Your task to perform on an android device: Go to accessibility settings Image 0: 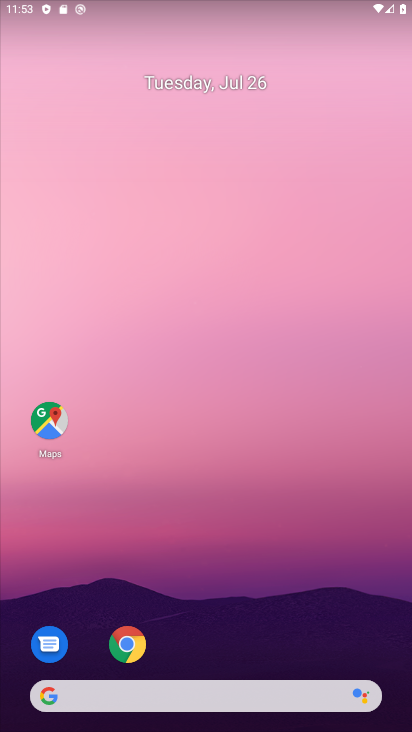
Step 0: drag from (208, 507) to (215, 213)
Your task to perform on an android device: Go to accessibility settings Image 1: 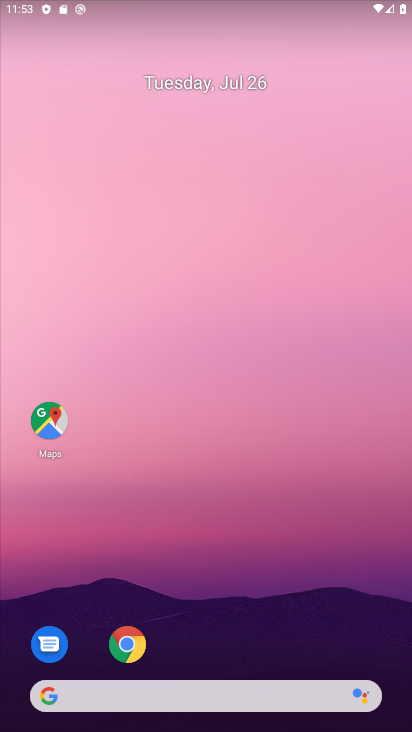
Step 1: drag from (313, 227) to (140, 20)
Your task to perform on an android device: Go to accessibility settings Image 2: 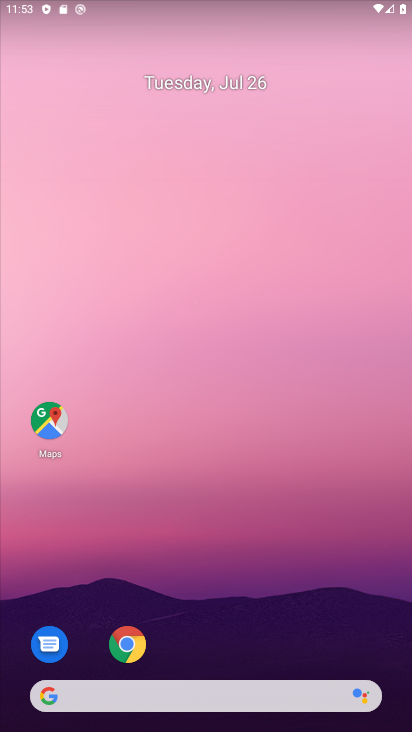
Step 2: drag from (180, 310) to (192, 98)
Your task to perform on an android device: Go to accessibility settings Image 3: 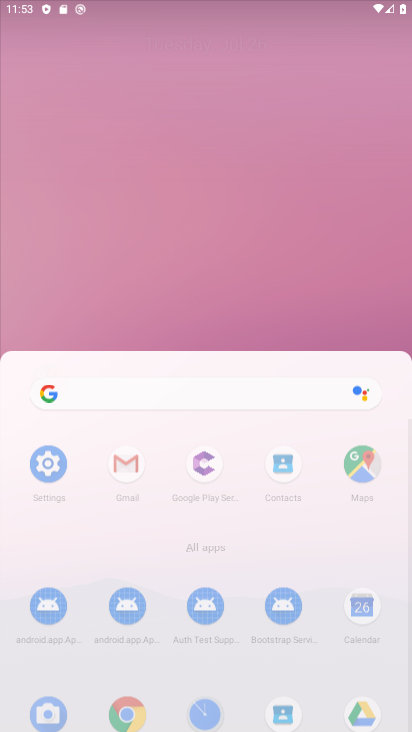
Step 3: drag from (178, 414) to (128, 40)
Your task to perform on an android device: Go to accessibility settings Image 4: 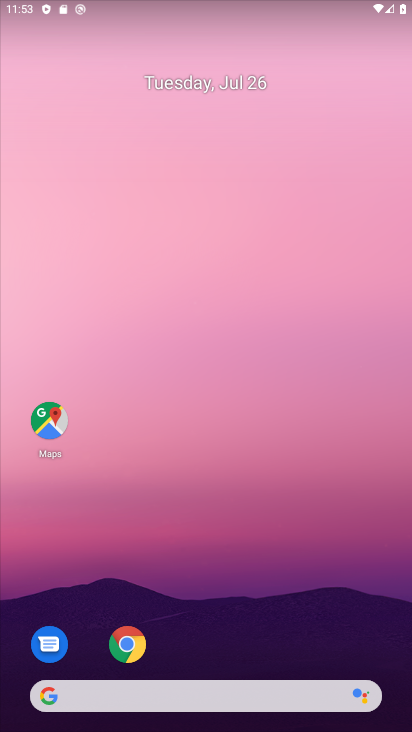
Step 4: drag from (253, 449) to (321, 20)
Your task to perform on an android device: Go to accessibility settings Image 5: 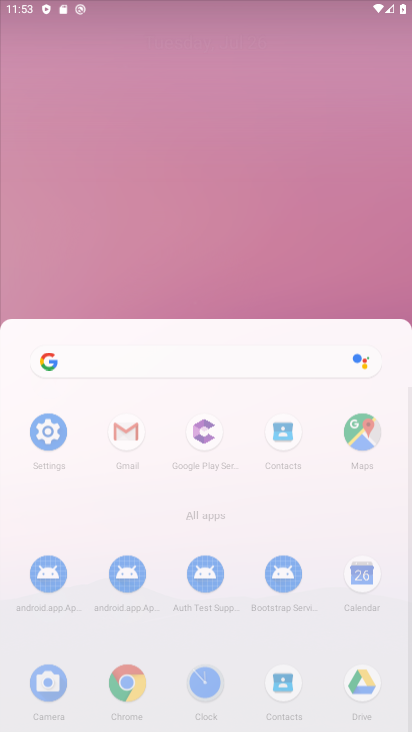
Step 5: click (288, 71)
Your task to perform on an android device: Go to accessibility settings Image 6: 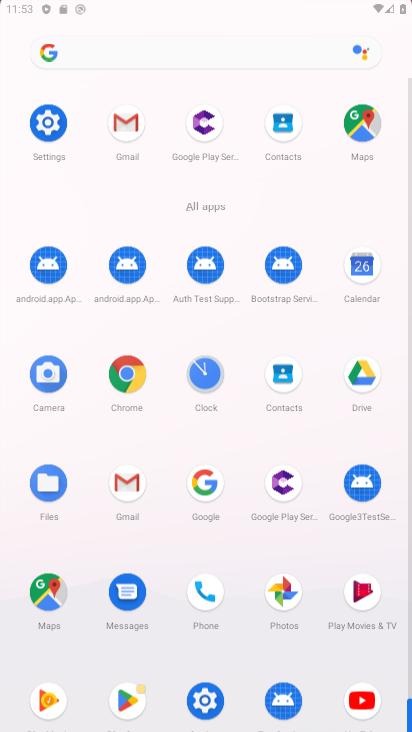
Step 6: drag from (162, 202) to (157, 12)
Your task to perform on an android device: Go to accessibility settings Image 7: 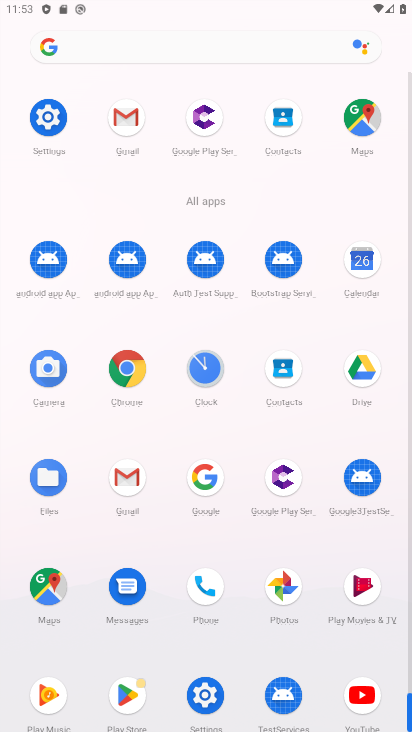
Step 7: drag from (152, 500) to (242, 127)
Your task to perform on an android device: Go to accessibility settings Image 8: 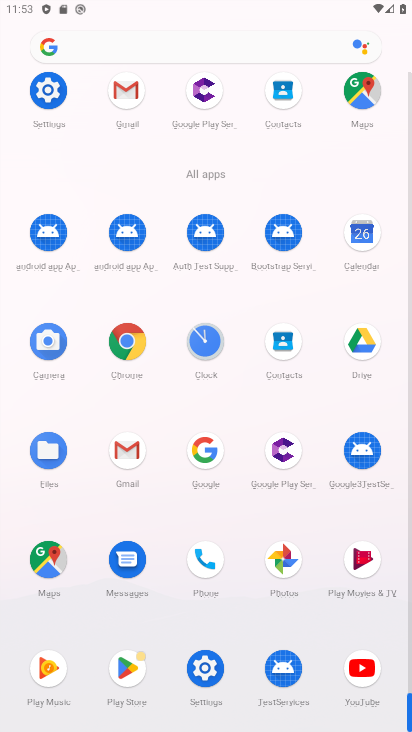
Step 8: click (43, 93)
Your task to perform on an android device: Go to accessibility settings Image 9: 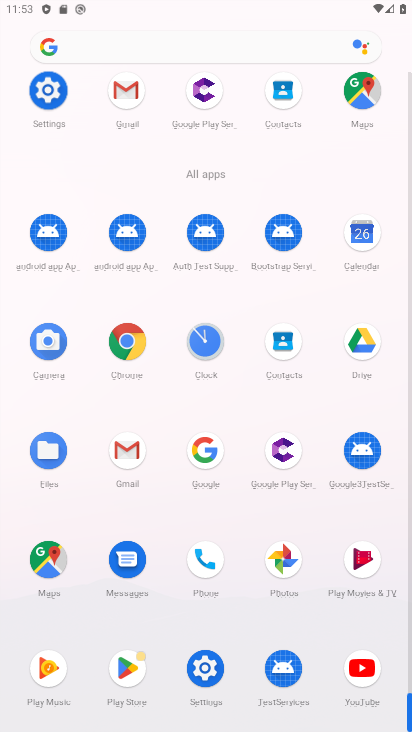
Step 9: click (46, 90)
Your task to perform on an android device: Go to accessibility settings Image 10: 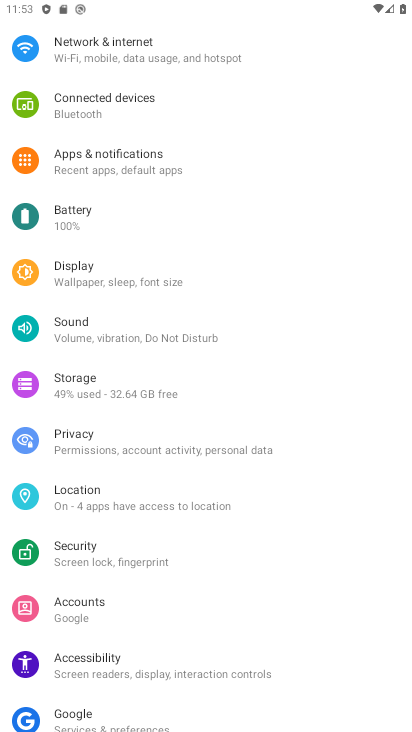
Step 10: drag from (137, 345) to (152, 206)
Your task to perform on an android device: Go to accessibility settings Image 11: 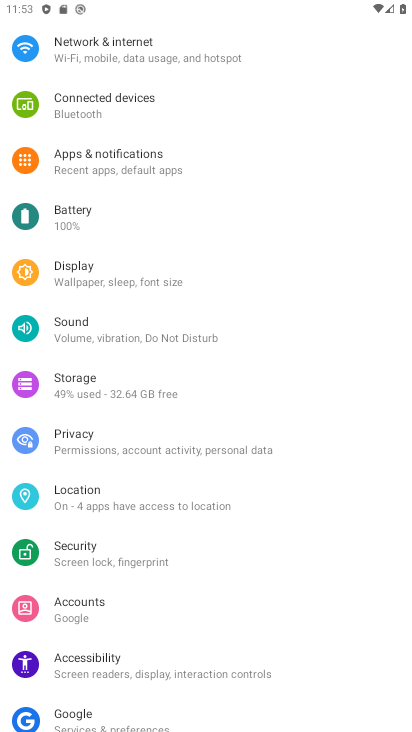
Step 11: drag from (136, 591) to (125, 441)
Your task to perform on an android device: Go to accessibility settings Image 12: 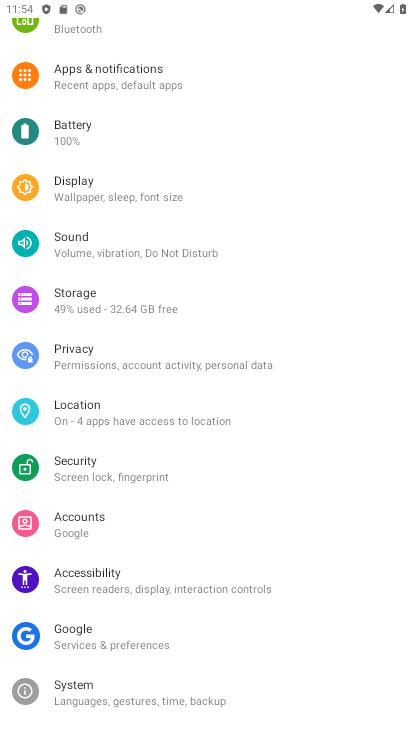
Step 12: click (84, 585)
Your task to perform on an android device: Go to accessibility settings Image 13: 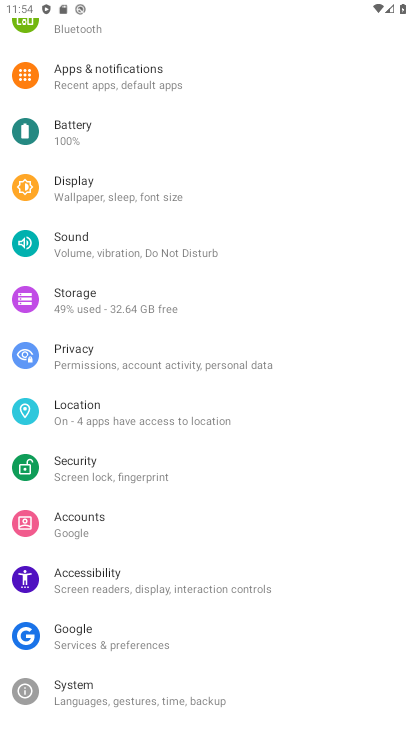
Step 13: click (84, 584)
Your task to perform on an android device: Go to accessibility settings Image 14: 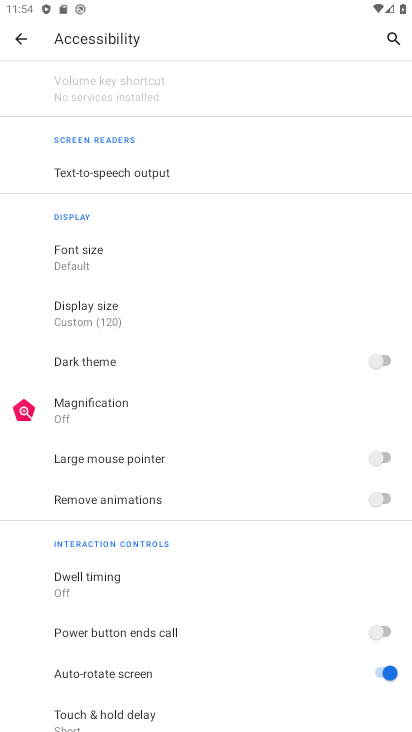
Step 14: task complete